Your task to perform on an android device: turn off javascript in the chrome app Image 0: 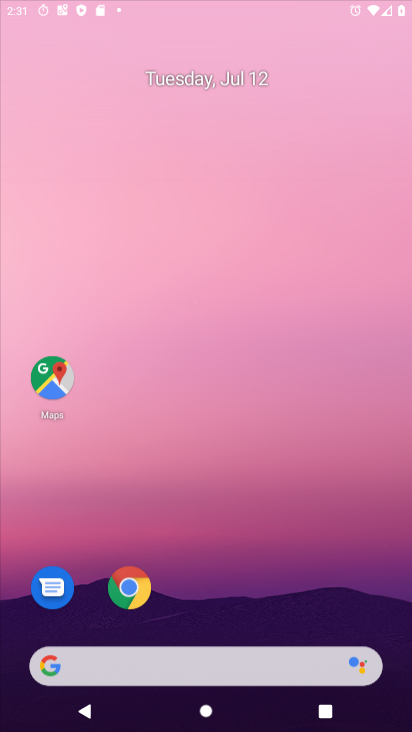
Step 0: click (233, 201)
Your task to perform on an android device: turn off javascript in the chrome app Image 1: 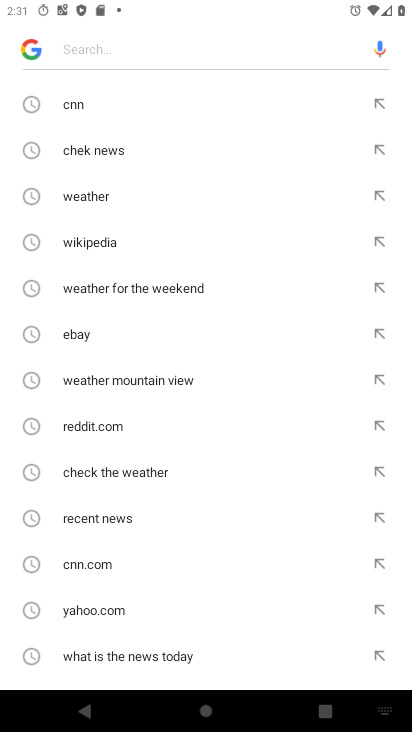
Step 1: drag from (194, 547) to (232, 451)
Your task to perform on an android device: turn off javascript in the chrome app Image 2: 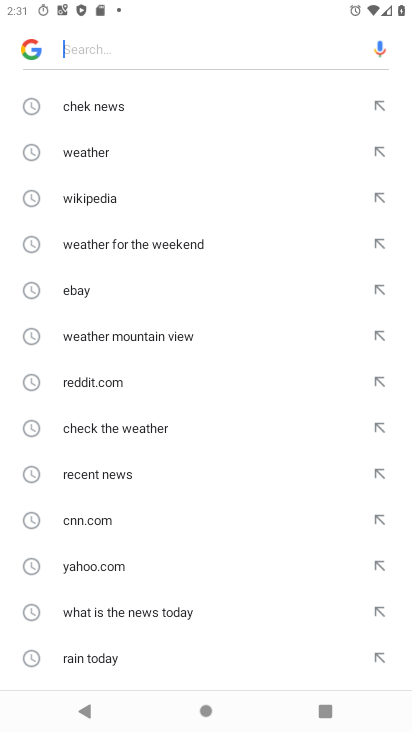
Step 2: drag from (101, 605) to (179, 398)
Your task to perform on an android device: turn off javascript in the chrome app Image 3: 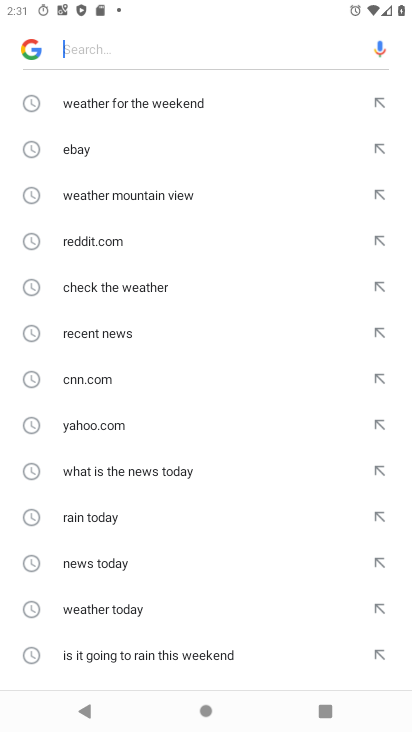
Step 3: press home button
Your task to perform on an android device: turn off javascript in the chrome app Image 4: 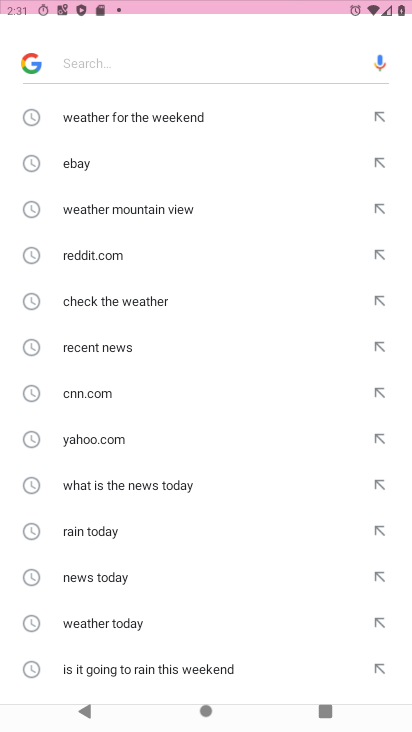
Step 4: drag from (200, 642) to (278, 285)
Your task to perform on an android device: turn off javascript in the chrome app Image 5: 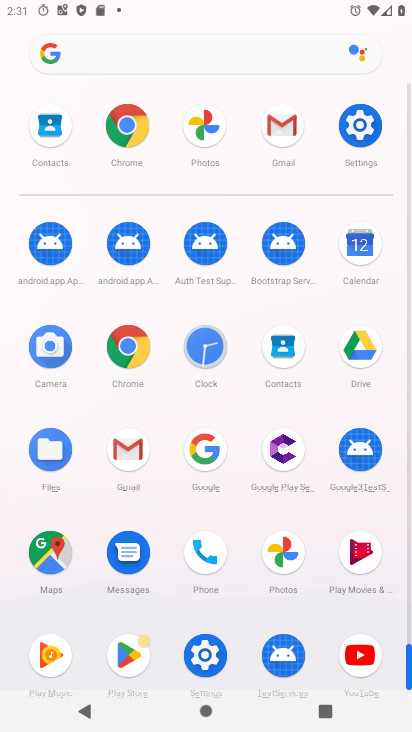
Step 5: click (120, 336)
Your task to perform on an android device: turn off javascript in the chrome app Image 6: 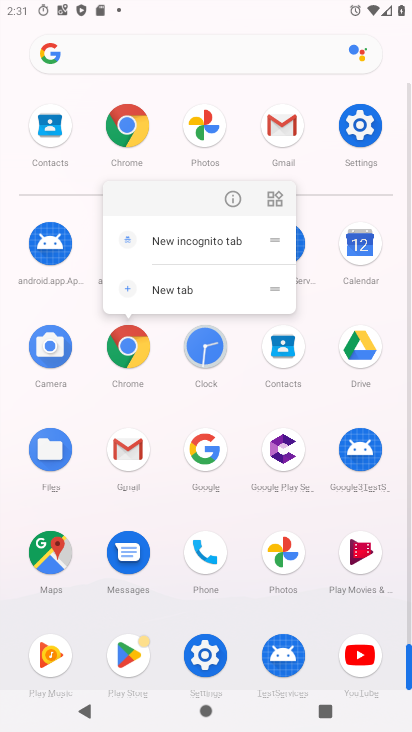
Step 6: click (235, 190)
Your task to perform on an android device: turn off javascript in the chrome app Image 7: 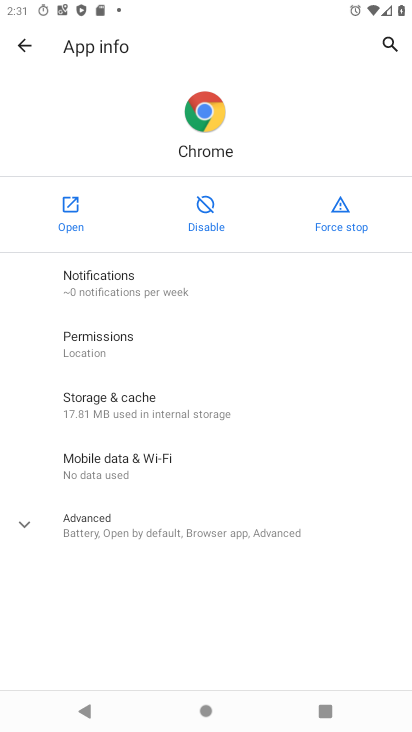
Step 7: click (68, 208)
Your task to perform on an android device: turn off javascript in the chrome app Image 8: 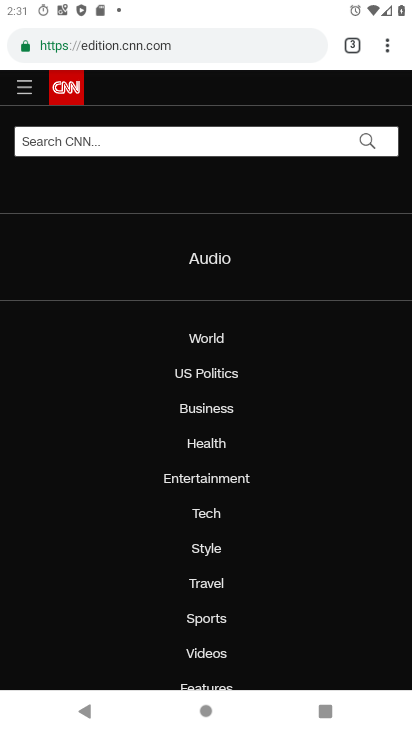
Step 8: click (387, 50)
Your task to perform on an android device: turn off javascript in the chrome app Image 9: 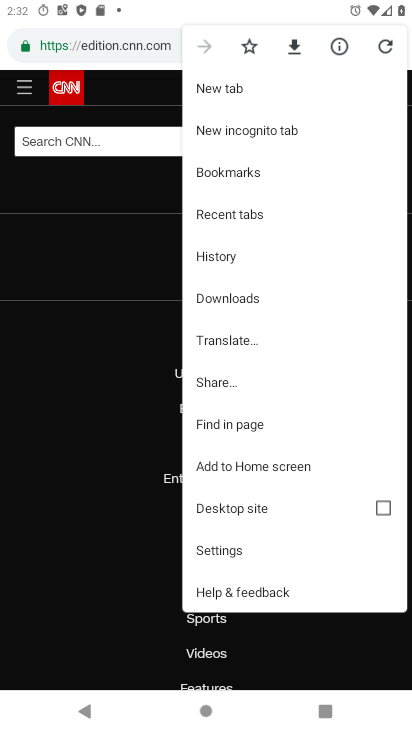
Step 9: click (221, 546)
Your task to perform on an android device: turn off javascript in the chrome app Image 10: 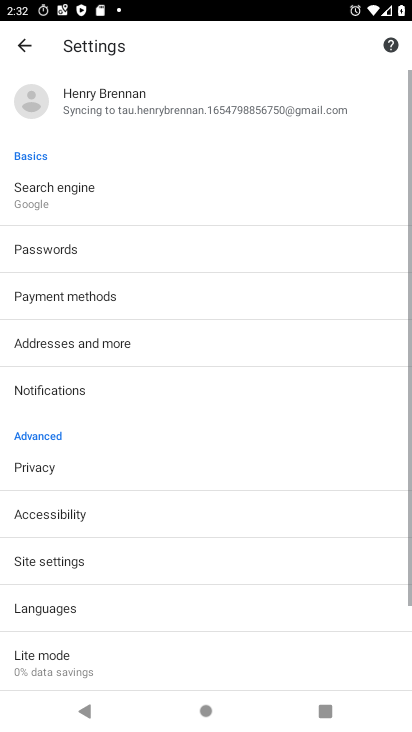
Step 10: drag from (111, 605) to (155, 330)
Your task to perform on an android device: turn off javascript in the chrome app Image 11: 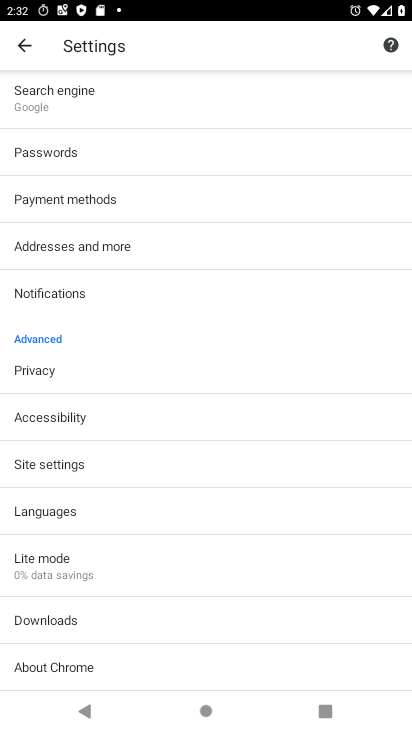
Step 11: click (83, 458)
Your task to perform on an android device: turn off javascript in the chrome app Image 12: 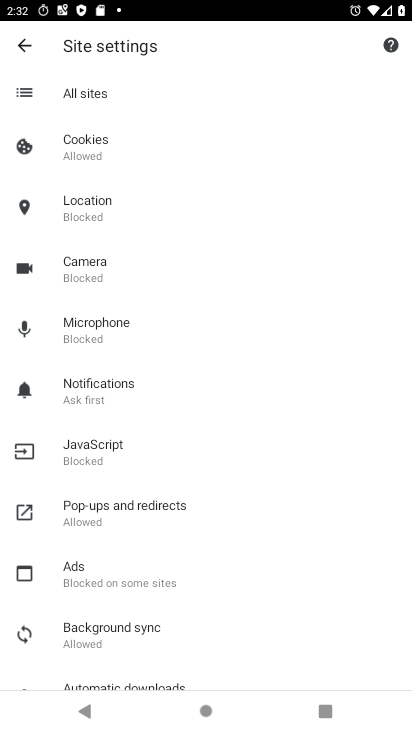
Step 12: click (109, 458)
Your task to perform on an android device: turn off javascript in the chrome app Image 13: 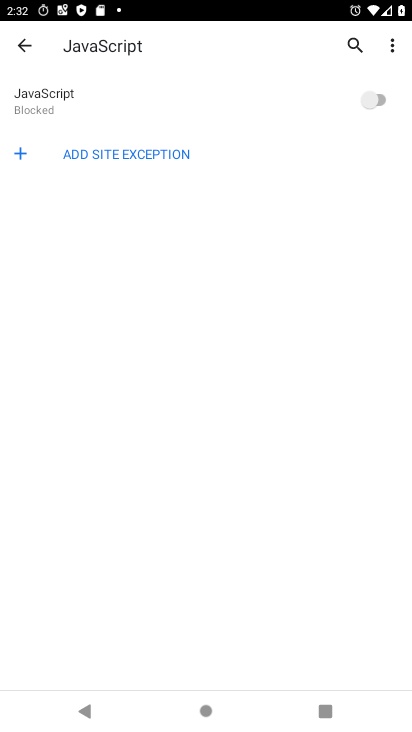
Step 13: task complete